Your task to perform on an android device: See recent photos Image 0: 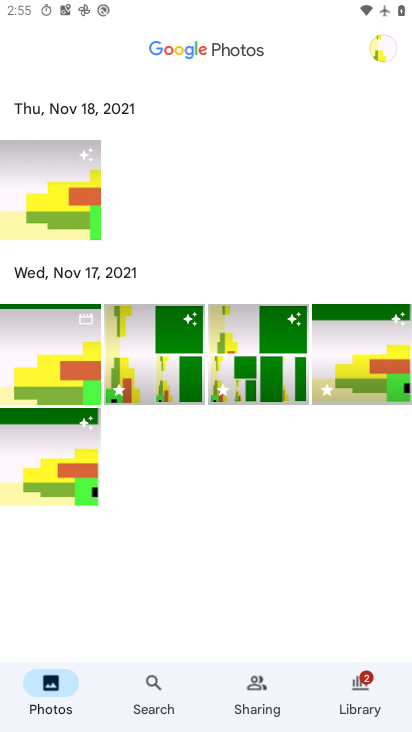
Step 0: click (100, 394)
Your task to perform on an android device: See recent photos Image 1: 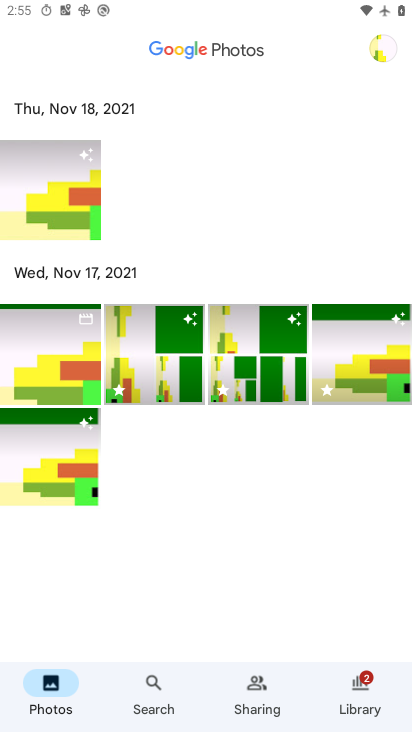
Step 1: click (178, 394)
Your task to perform on an android device: See recent photos Image 2: 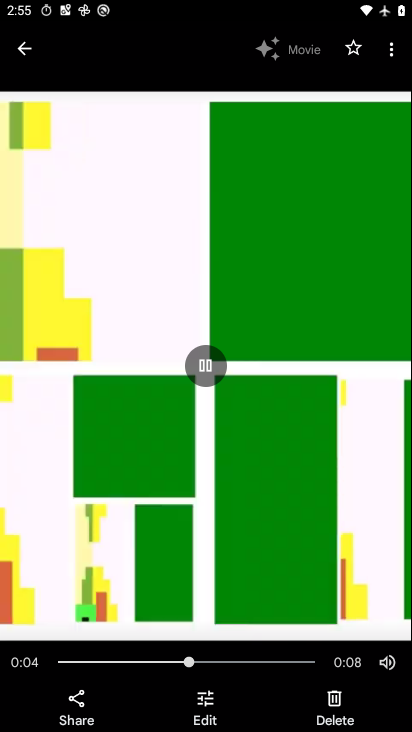
Step 2: click (34, 51)
Your task to perform on an android device: See recent photos Image 3: 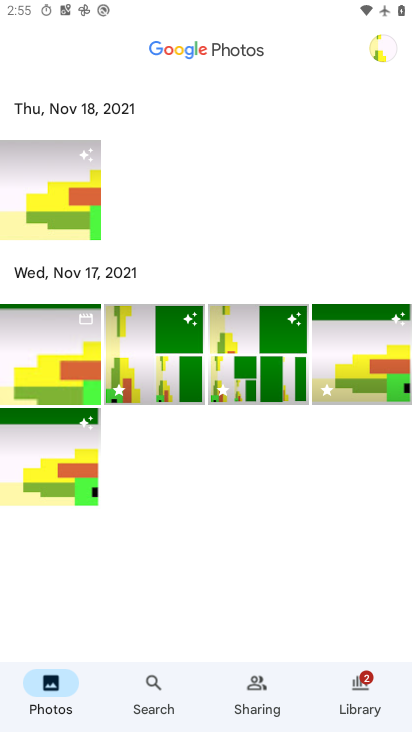
Step 3: click (181, 354)
Your task to perform on an android device: See recent photos Image 4: 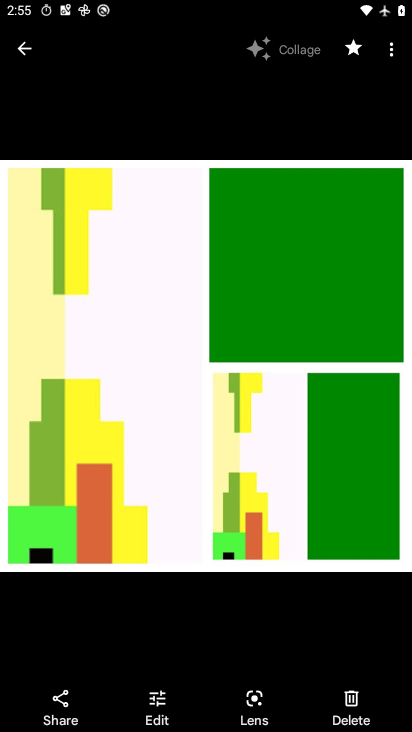
Step 4: task complete